Your task to perform on an android device: Open privacy settings Image 0: 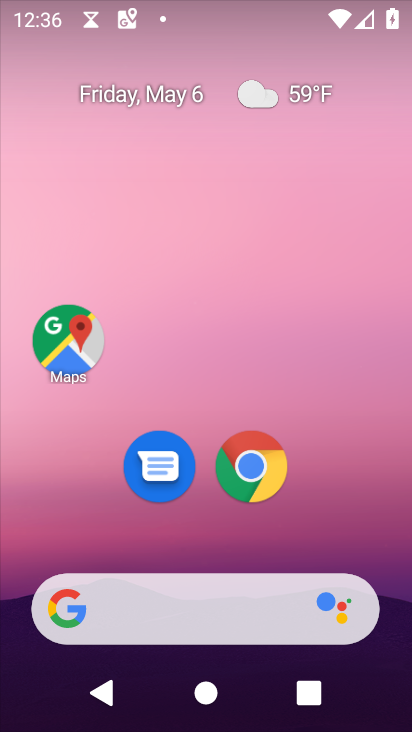
Step 0: drag from (390, 492) to (277, 51)
Your task to perform on an android device: Open privacy settings Image 1: 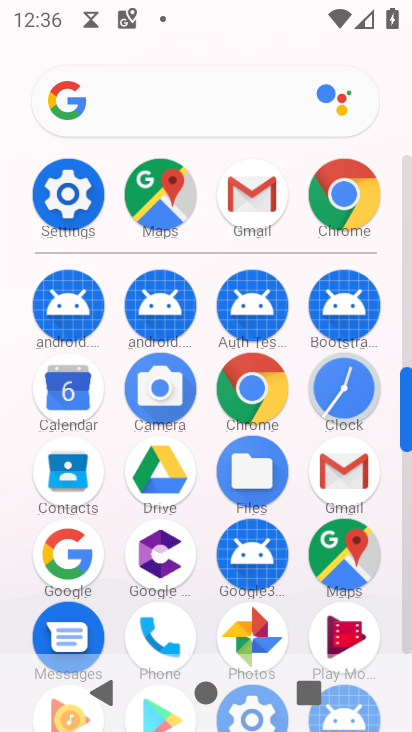
Step 1: click (80, 194)
Your task to perform on an android device: Open privacy settings Image 2: 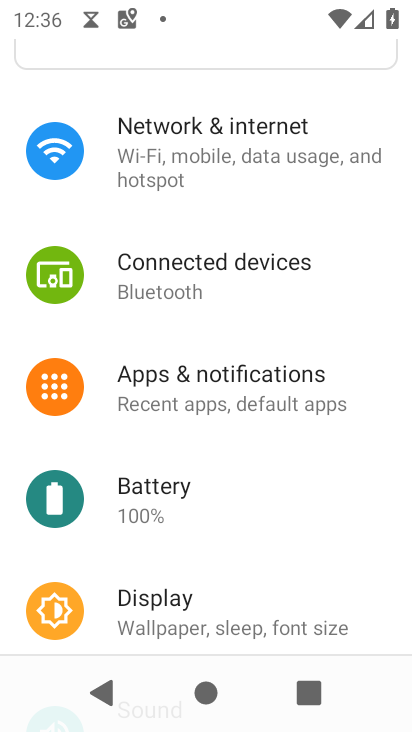
Step 2: drag from (248, 550) to (217, 256)
Your task to perform on an android device: Open privacy settings Image 3: 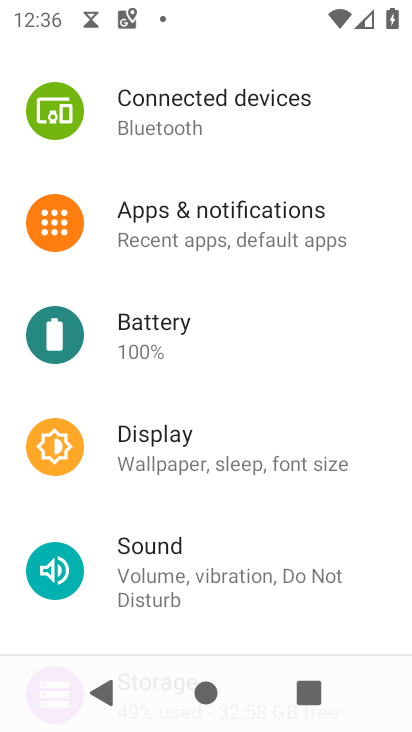
Step 3: drag from (290, 526) to (239, 114)
Your task to perform on an android device: Open privacy settings Image 4: 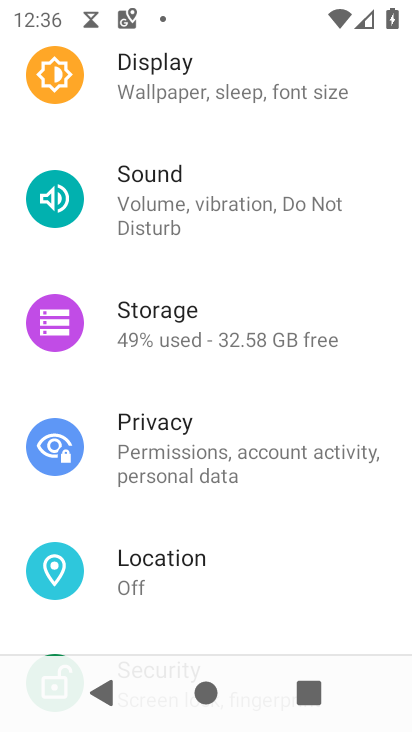
Step 4: click (317, 429)
Your task to perform on an android device: Open privacy settings Image 5: 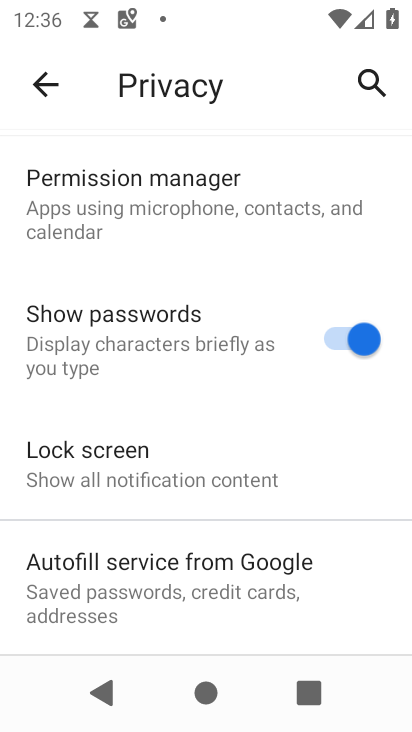
Step 5: task complete